Your task to perform on an android device: Open my contact list Image 0: 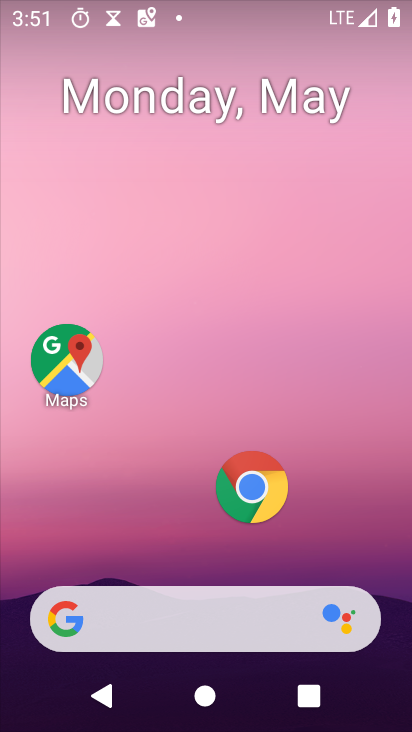
Step 0: drag from (173, 572) to (216, 69)
Your task to perform on an android device: Open my contact list Image 1: 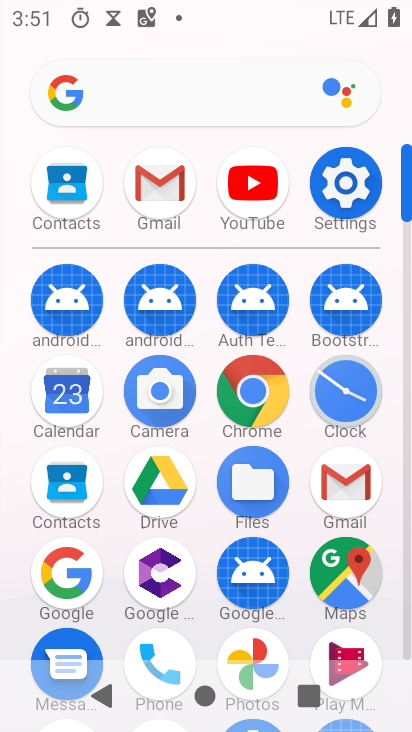
Step 1: click (63, 477)
Your task to perform on an android device: Open my contact list Image 2: 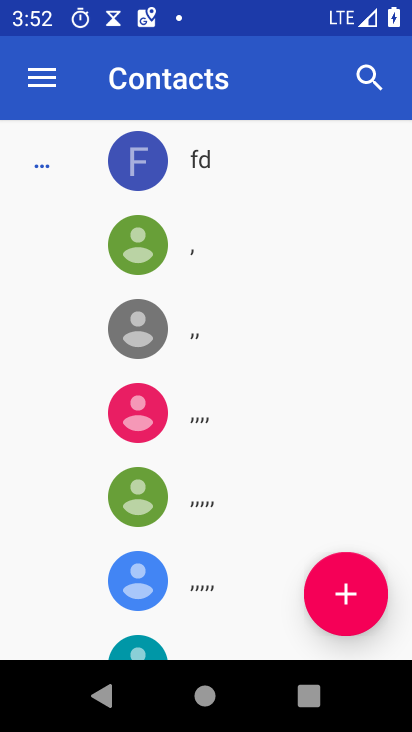
Step 2: task complete